Your task to perform on an android device: Search for pizza restaurants on Maps Image 0: 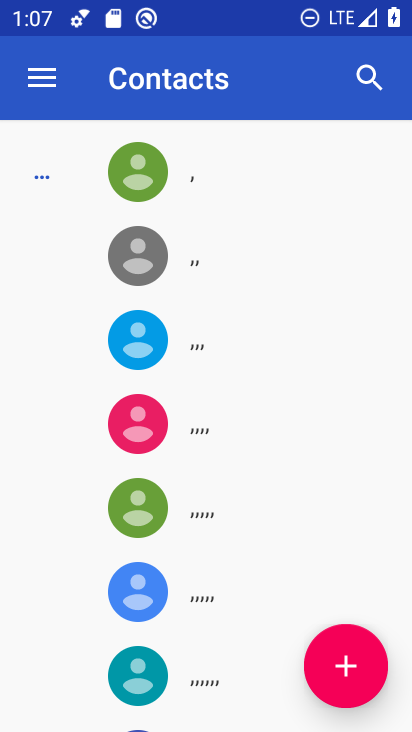
Step 0: press home button
Your task to perform on an android device: Search for pizza restaurants on Maps Image 1: 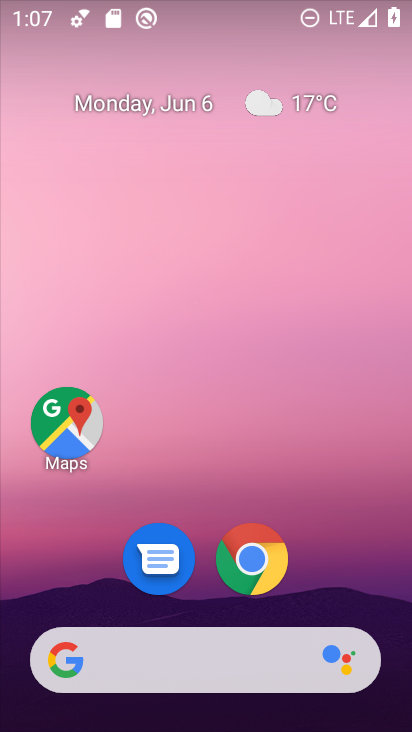
Step 1: drag from (167, 670) to (255, 128)
Your task to perform on an android device: Search for pizza restaurants on Maps Image 2: 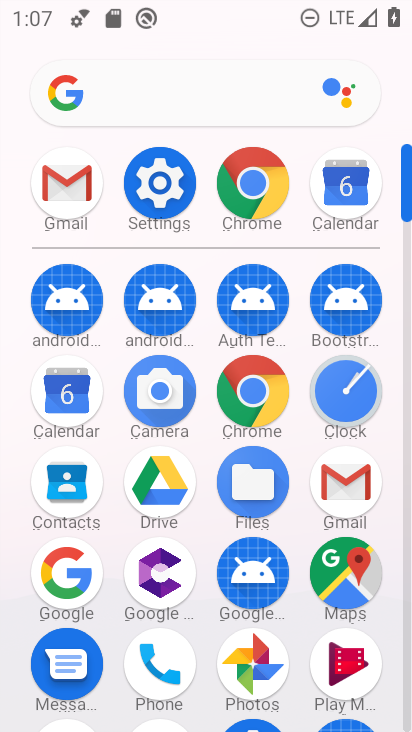
Step 2: click (354, 573)
Your task to perform on an android device: Search for pizza restaurants on Maps Image 3: 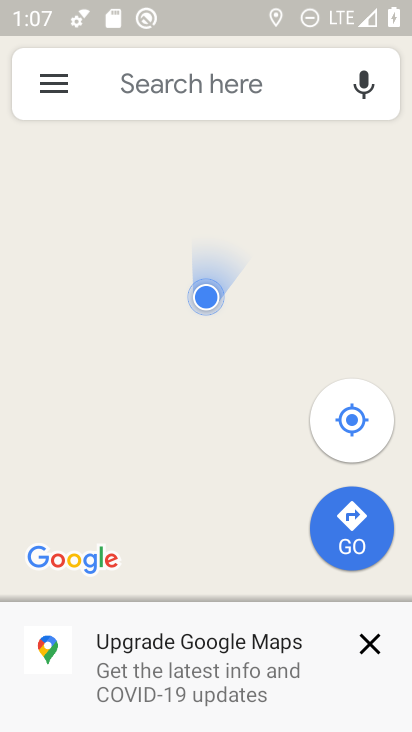
Step 3: click (228, 95)
Your task to perform on an android device: Search for pizza restaurants on Maps Image 4: 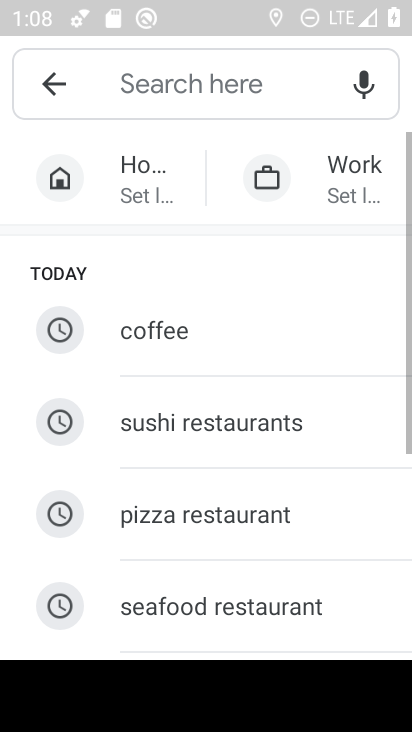
Step 4: click (186, 509)
Your task to perform on an android device: Search for pizza restaurants on Maps Image 5: 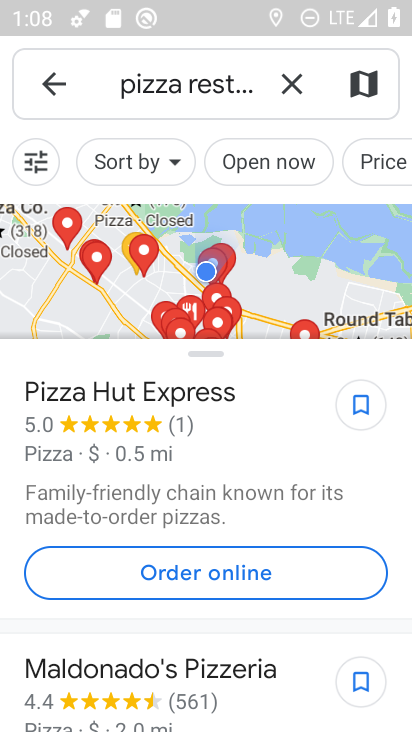
Step 5: task complete